Your task to perform on an android device: What's the latest video from GameTrailers? Image 0: 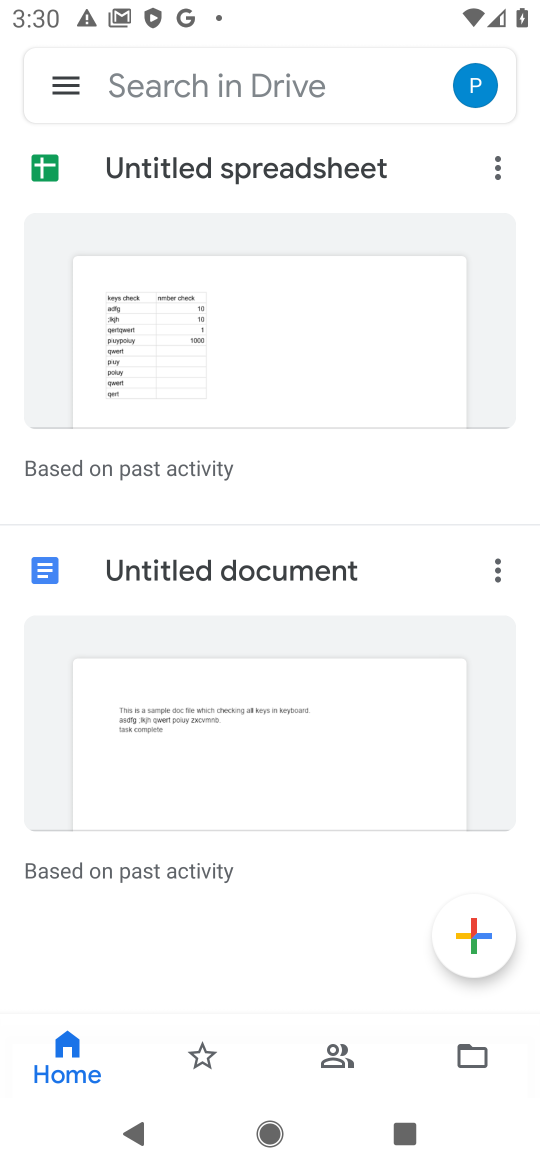
Step 0: press home button
Your task to perform on an android device: What's the latest video from GameTrailers? Image 1: 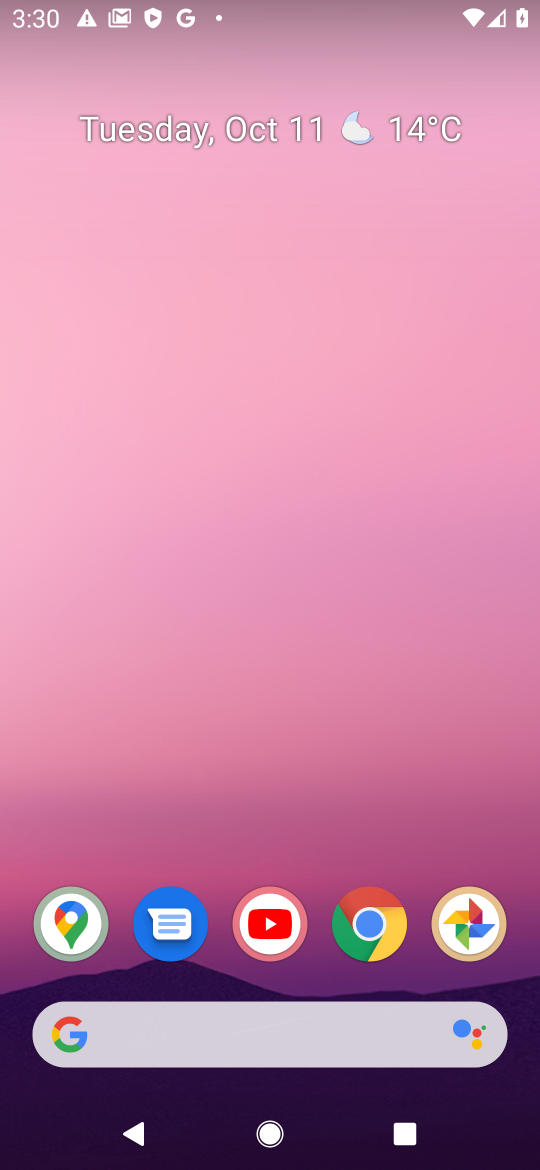
Step 1: click (280, 926)
Your task to perform on an android device: What's the latest video from GameTrailers? Image 2: 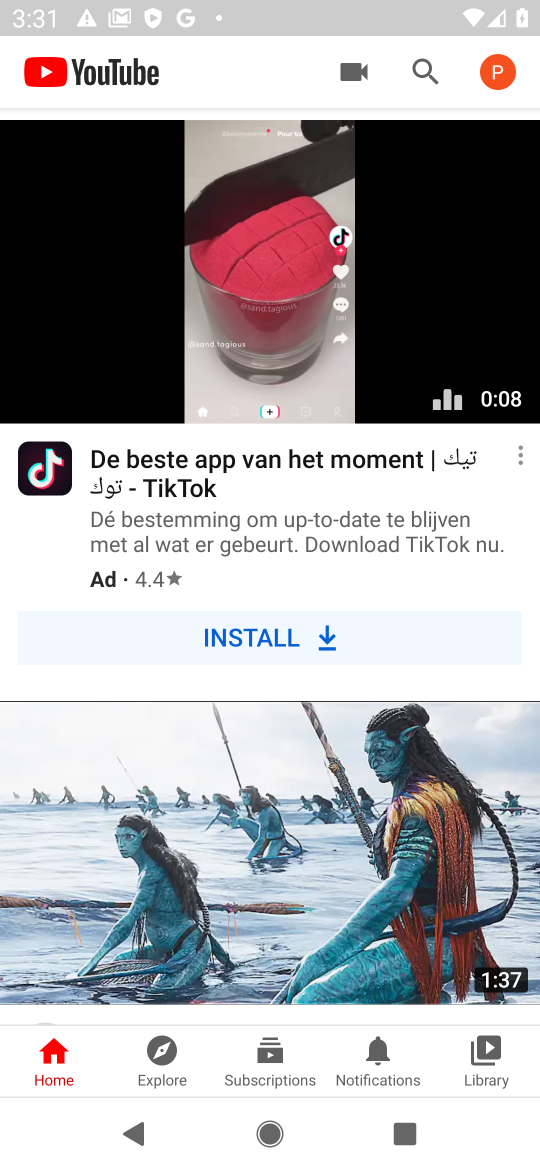
Step 2: click (415, 80)
Your task to perform on an android device: What's the latest video from GameTrailers? Image 3: 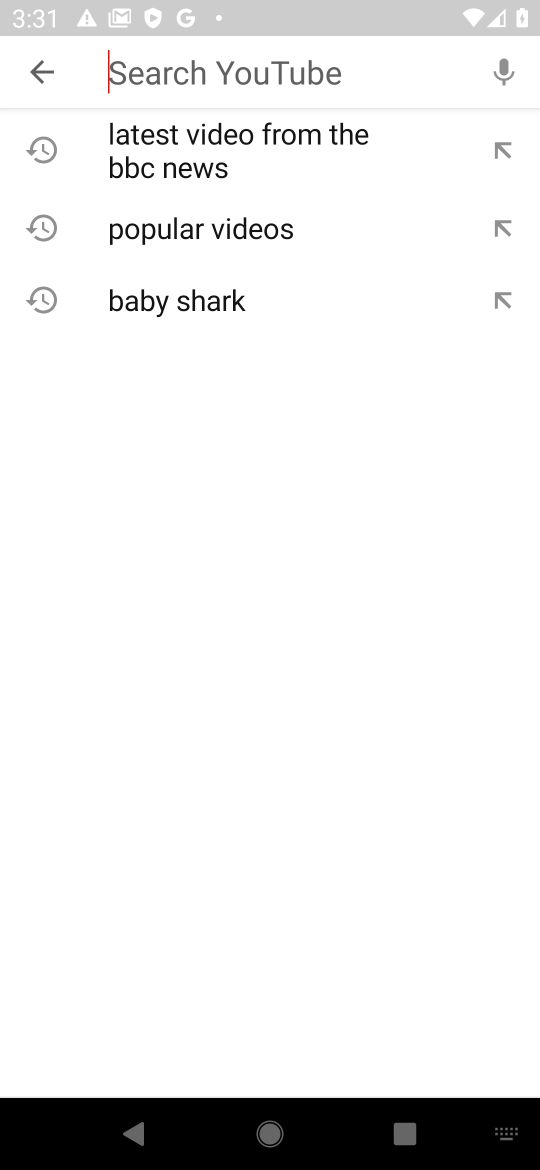
Step 3: type "GameTrailers"
Your task to perform on an android device: What's the latest video from GameTrailers? Image 4: 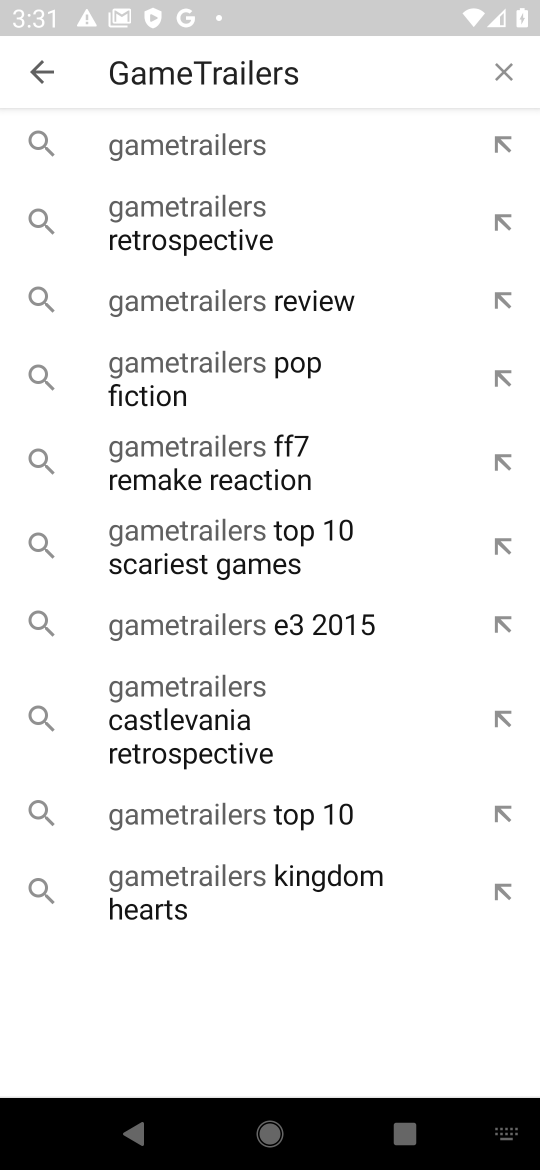
Step 4: click (243, 128)
Your task to perform on an android device: What's the latest video from GameTrailers? Image 5: 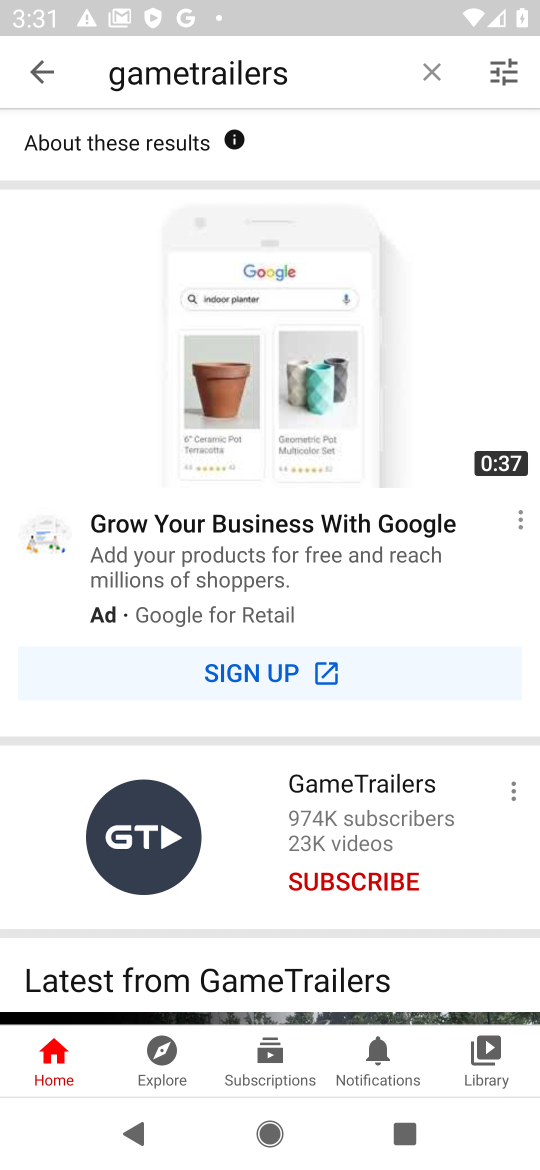
Step 5: click (413, 793)
Your task to perform on an android device: What's the latest video from GameTrailers? Image 6: 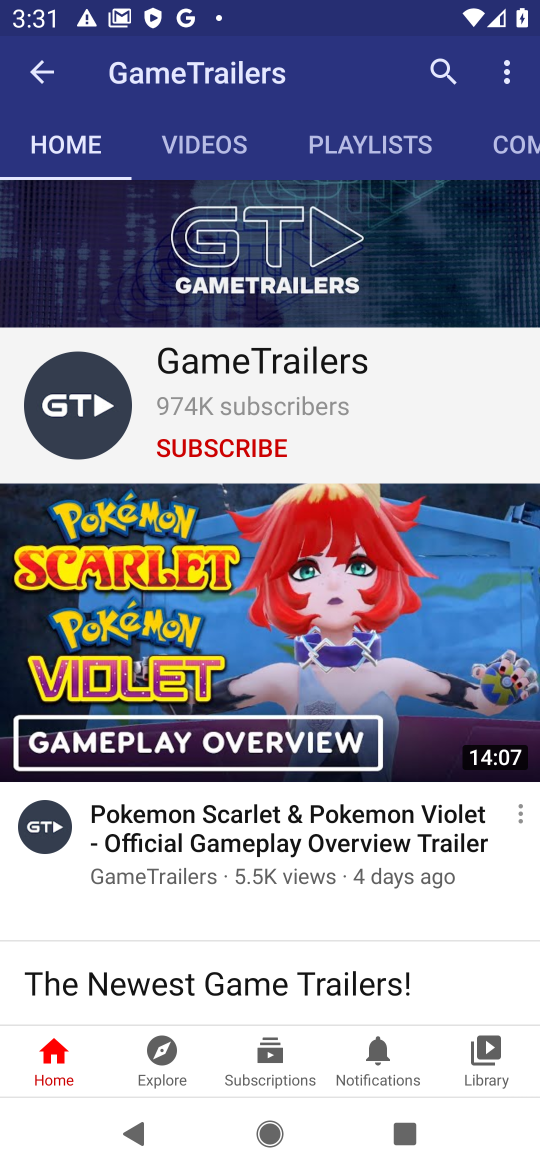
Step 6: click (184, 144)
Your task to perform on an android device: What's the latest video from GameTrailers? Image 7: 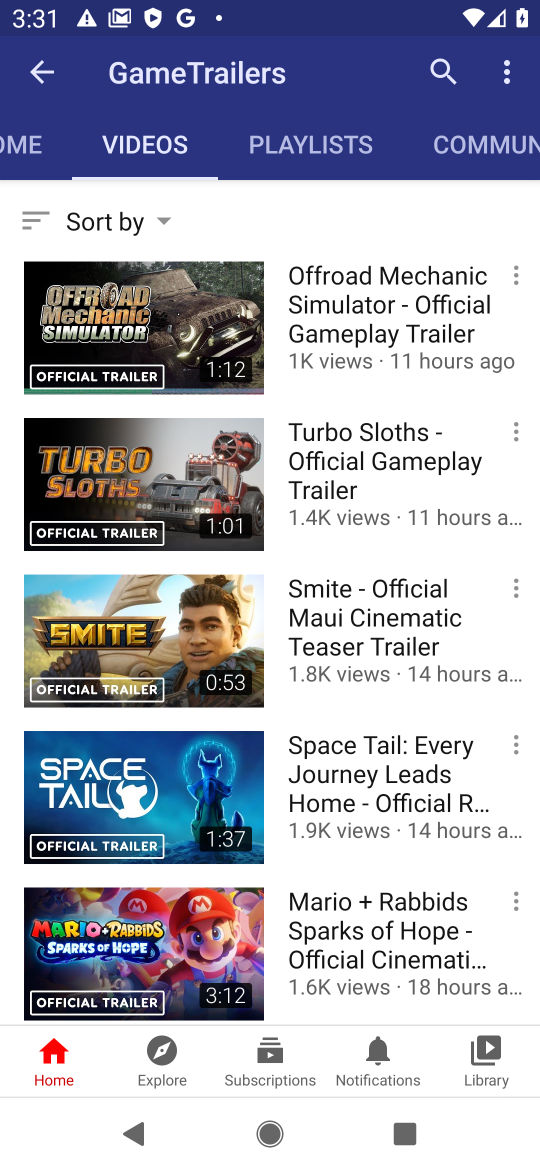
Step 7: click (334, 347)
Your task to perform on an android device: What's the latest video from GameTrailers? Image 8: 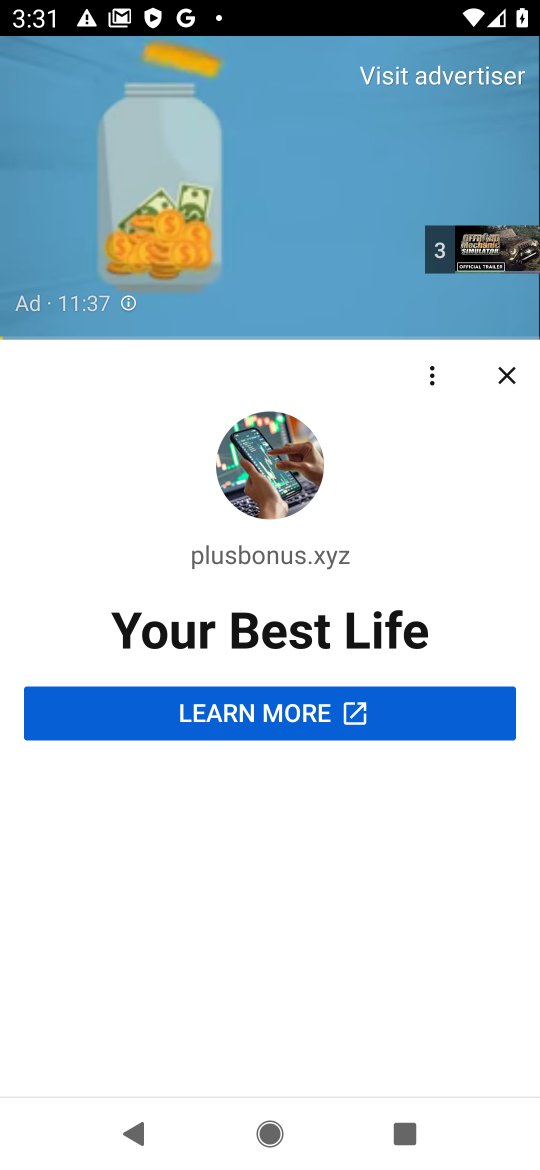
Step 8: task complete